Your task to perform on an android device: Open Google Chrome and open the bookmarks view Image 0: 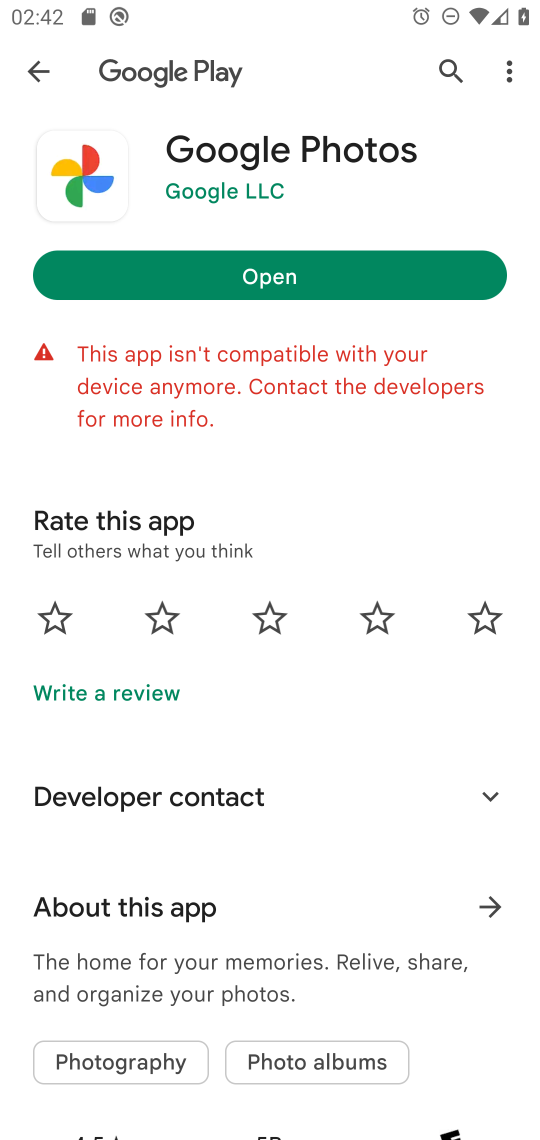
Step 0: press home button
Your task to perform on an android device: Open Google Chrome and open the bookmarks view Image 1: 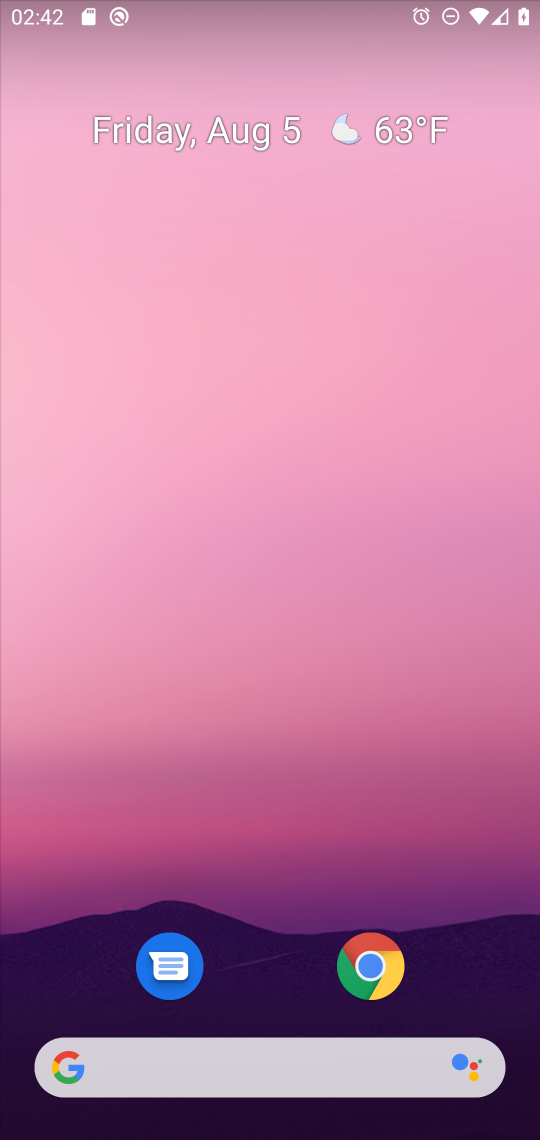
Step 1: click (376, 954)
Your task to perform on an android device: Open Google Chrome and open the bookmarks view Image 2: 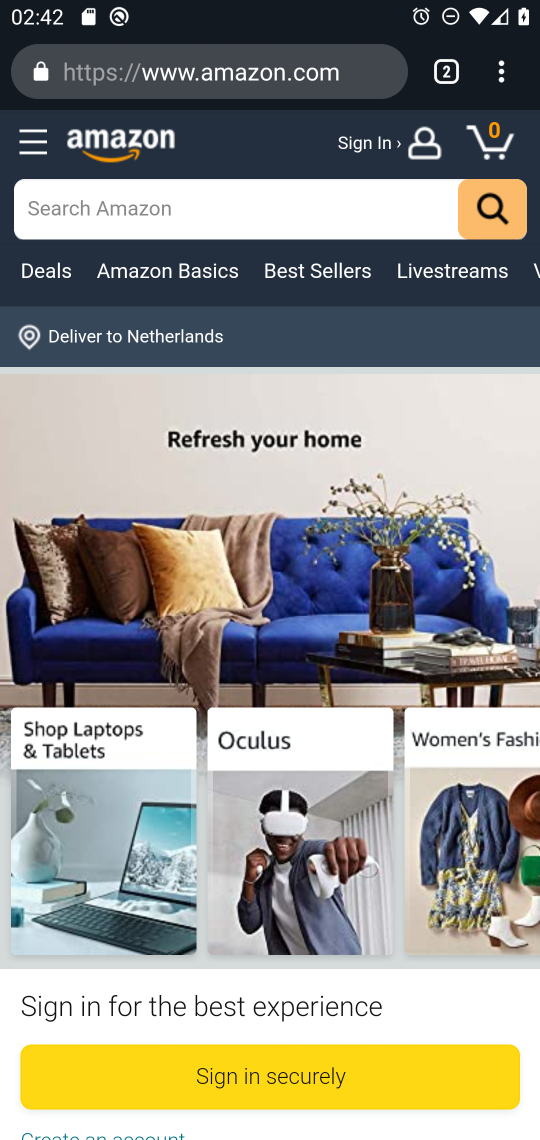
Step 2: click (503, 76)
Your task to perform on an android device: Open Google Chrome and open the bookmarks view Image 3: 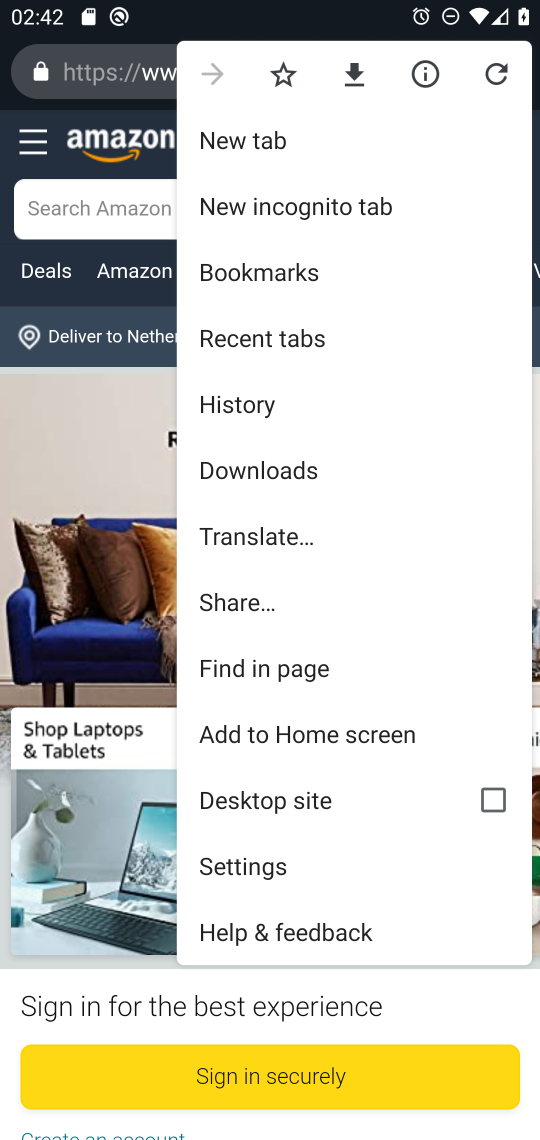
Step 3: click (306, 271)
Your task to perform on an android device: Open Google Chrome and open the bookmarks view Image 4: 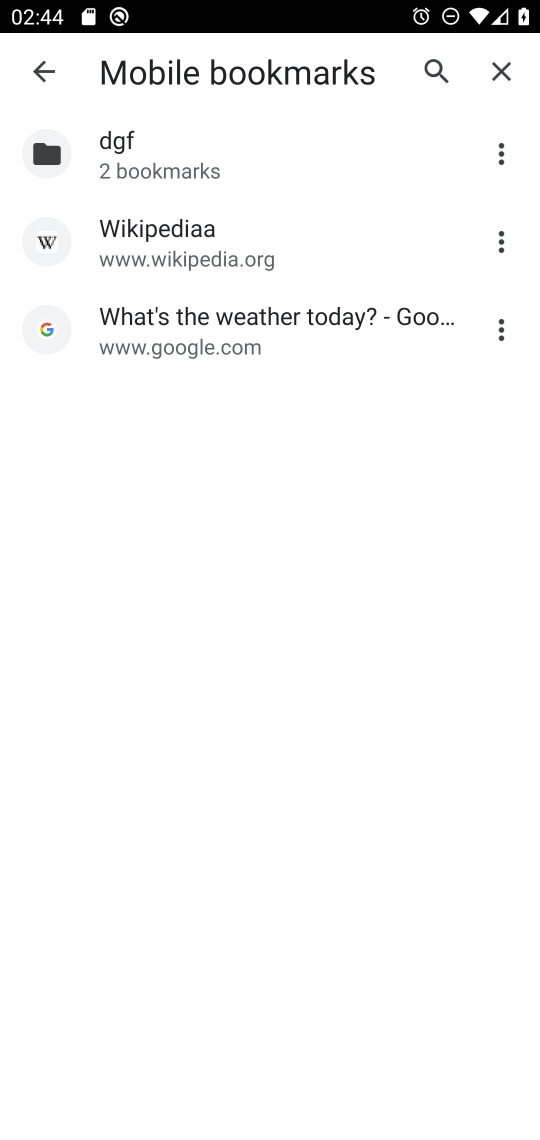
Step 4: task complete